Your task to perform on an android device: Open the map Image 0: 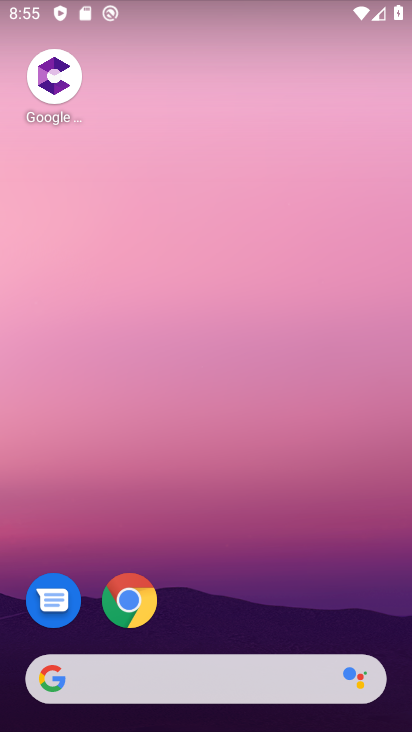
Step 0: drag from (201, 574) to (179, 310)
Your task to perform on an android device: Open the map Image 1: 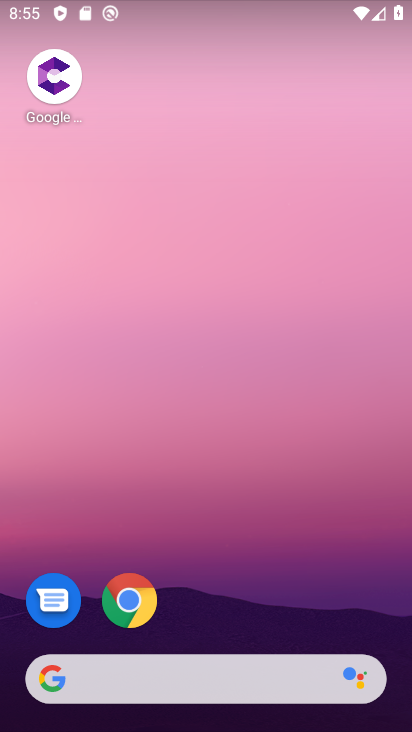
Step 1: drag from (245, 556) to (202, 169)
Your task to perform on an android device: Open the map Image 2: 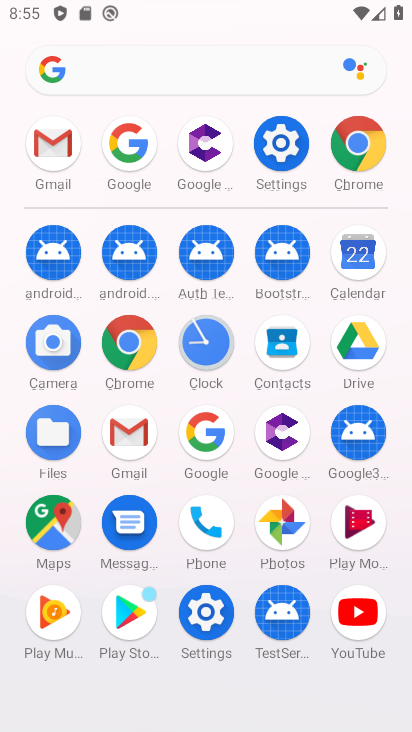
Step 2: click (57, 533)
Your task to perform on an android device: Open the map Image 3: 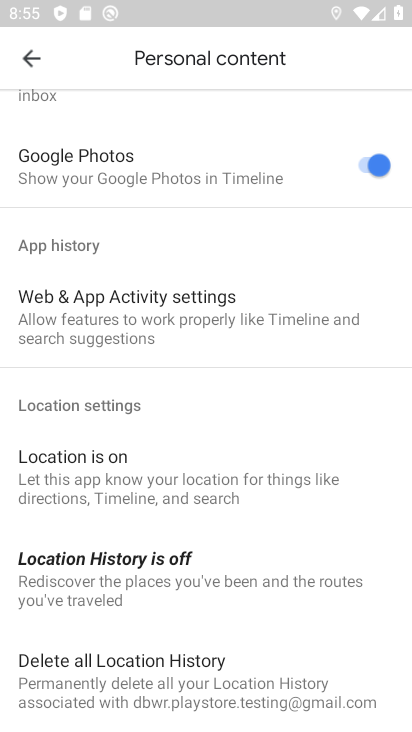
Step 3: click (25, 58)
Your task to perform on an android device: Open the map Image 4: 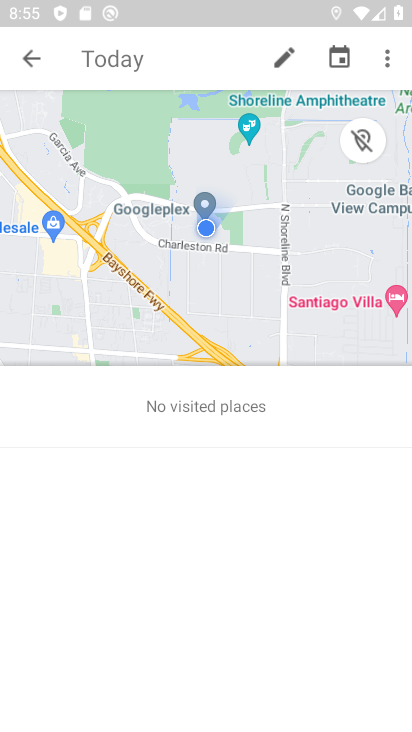
Step 4: task complete